Your task to perform on an android device: choose inbox layout in the gmail app Image 0: 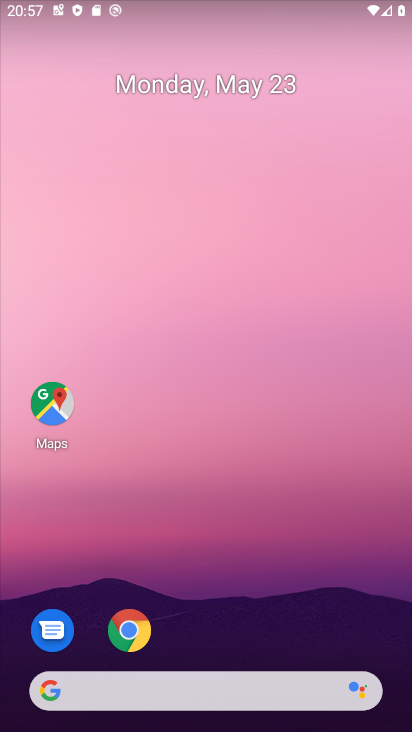
Step 0: drag from (196, 675) to (268, 359)
Your task to perform on an android device: choose inbox layout in the gmail app Image 1: 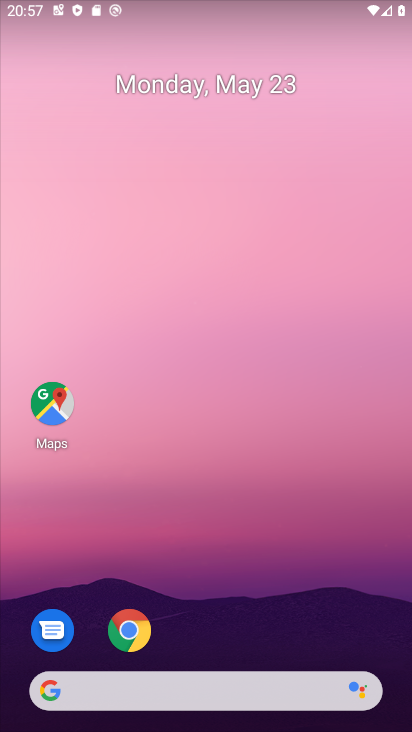
Step 1: drag from (214, 666) to (306, 17)
Your task to perform on an android device: choose inbox layout in the gmail app Image 2: 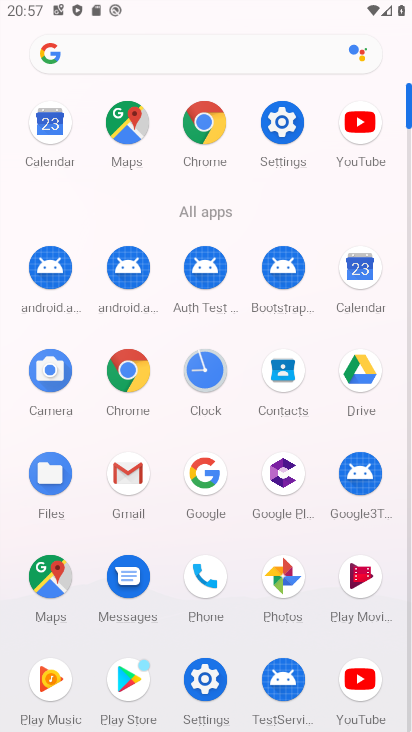
Step 2: click (132, 477)
Your task to perform on an android device: choose inbox layout in the gmail app Image 3: 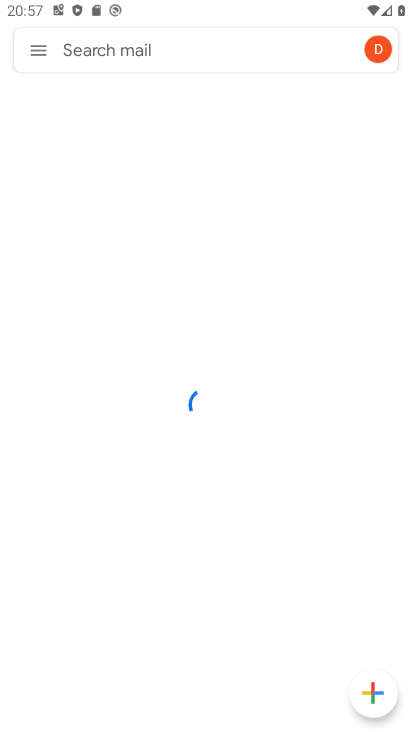
Step 3: click (40, 47)
Your task to perform on an android device: choose inbox layout in the gmail app Image 4: 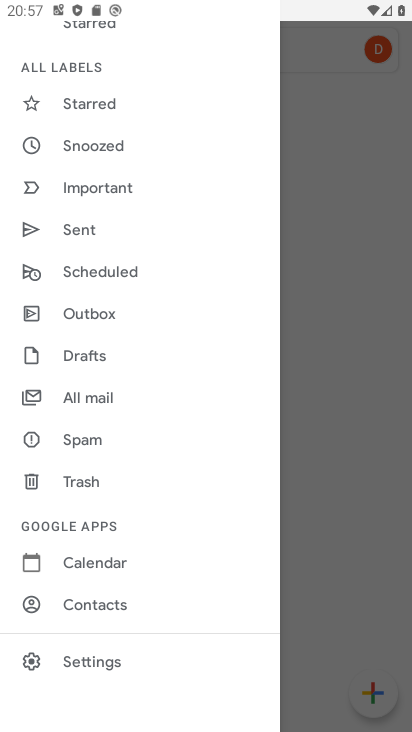
Step 4: click (91, 667)
Your task to perform on an android device: choose inbox layout in the gmail app Image 5: 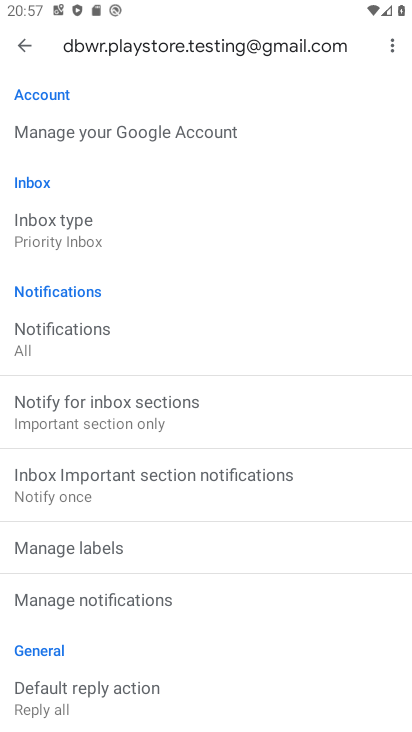
Step 5: click (68, 230)
Your task to perform on an android device: choose inbox layout in the gmail app Image 6: 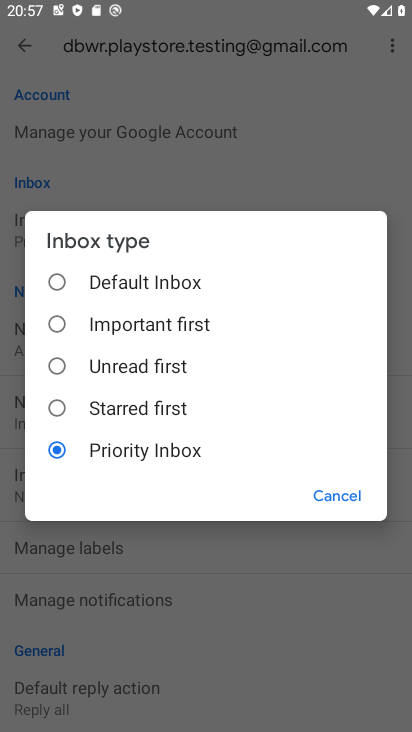
Step 6: click (89, 313)
Your task to perform on an android device: choose inbox layout in the gmail app Image 7: 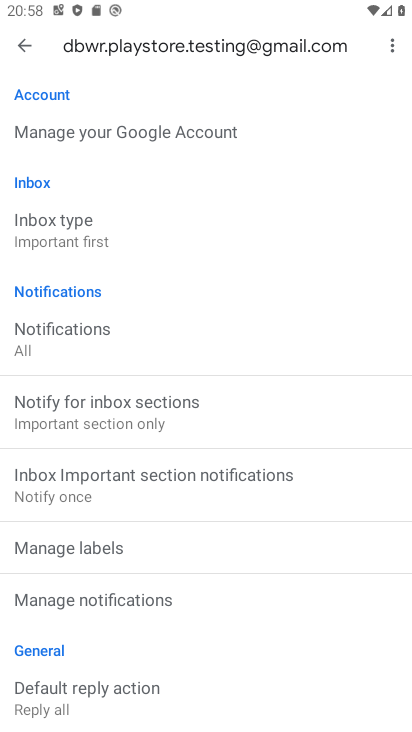
Step 7: task complete